Your task to perform on an android device: Open calendar and show me the third week of next month Image 0: 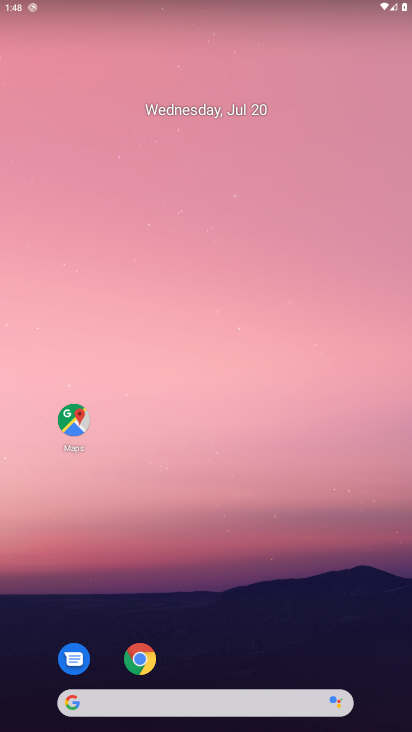
Step 0: drag from (22, 708) to (155, 313)
Your task to perform on an android device: Open calendar and show me the third week of next month Image 1: 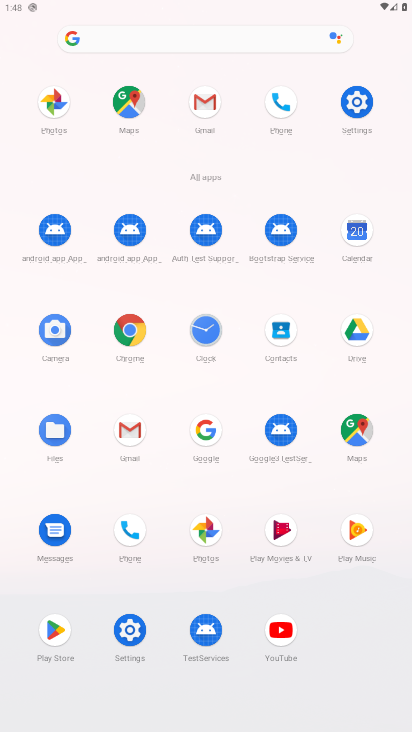
Step 1: click (357, 238)
Your task to perform on an android device: Open calendar and show me the third week of next month Image 2: 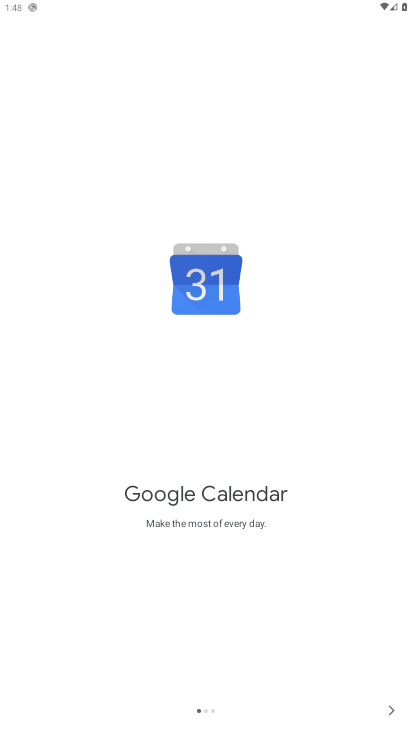
Step 2: click (389, 707)
Your task to perform on an android device: Open calendar and show me the third week of next month Image 3: 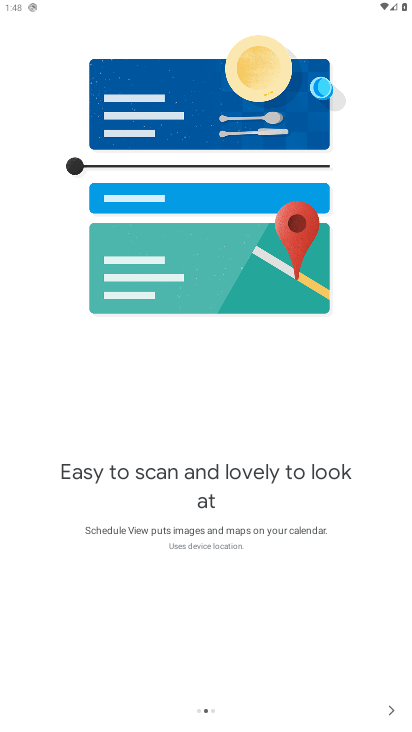
Step 3: click (390, 704)
Your task to perform on an android device: Open calendar and show me the third week of next month Image 4: 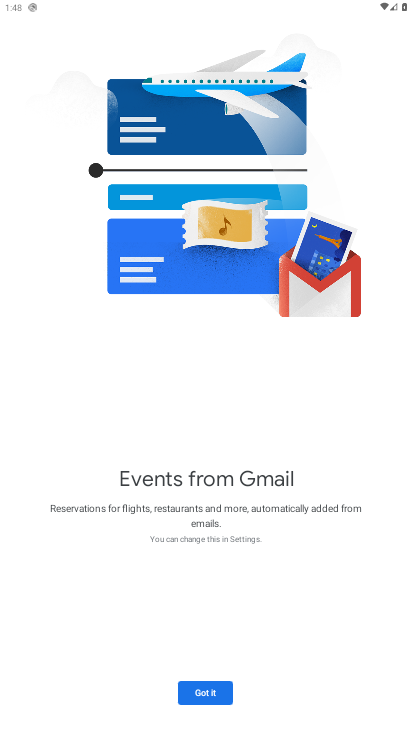
Step 4: click (211, 686)
Your task to perform on an android device: Open calendar and show me the third week of next month Image 5: 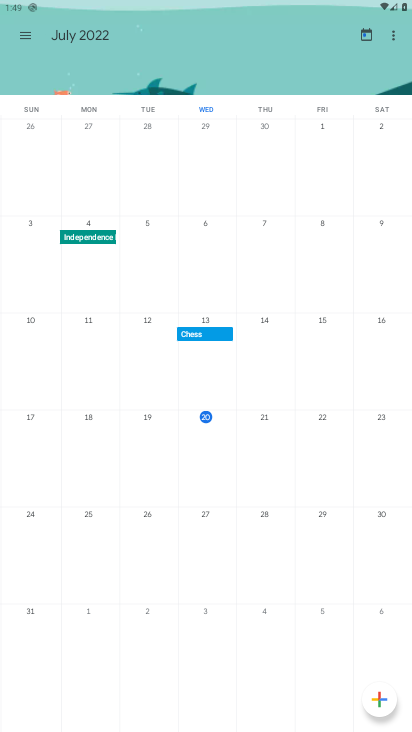
Step 5: click (14, 42)
Your task to perform on an android device: Open calendar and show me the third week of next month Image 6: 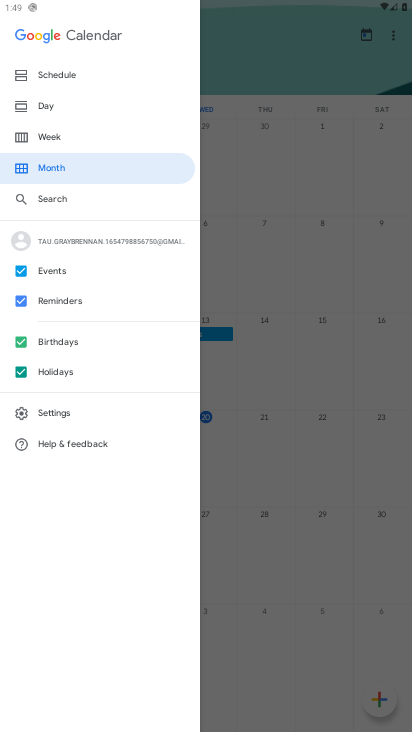
Step 6: click (266, 35)
Your task to perform on an android device: Open calendar and show me the third week of next month Image 7: 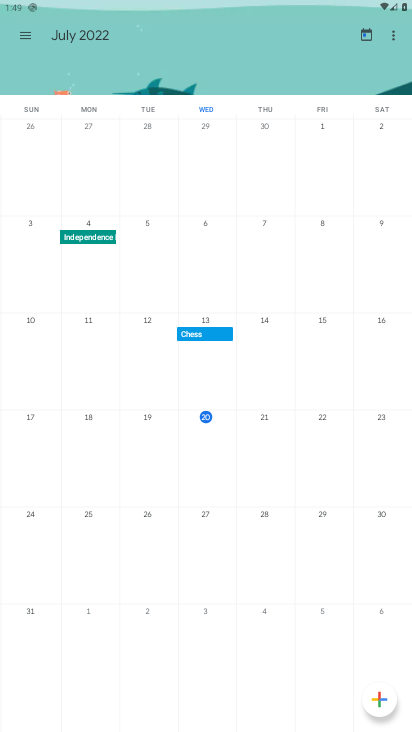
Step 7: drag from (377, 280) to (0, 358)
Your task to perform on an android device: Open calendar and show me the third week of next month Image 8: 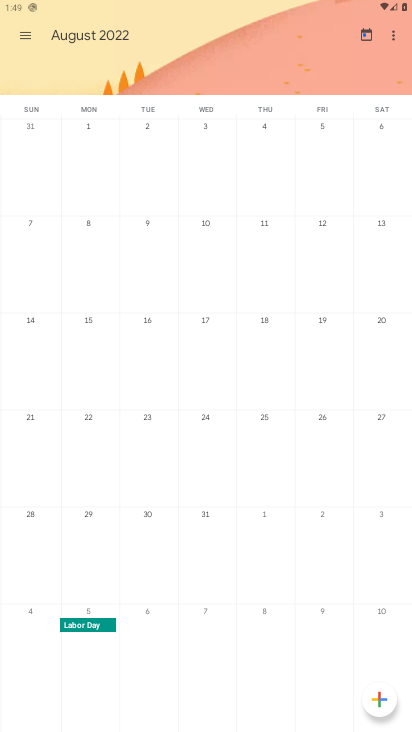
Step 8: click (91, 329)
Your task to perform on an android device: Open calendar and show me the third week of next month Image 9: 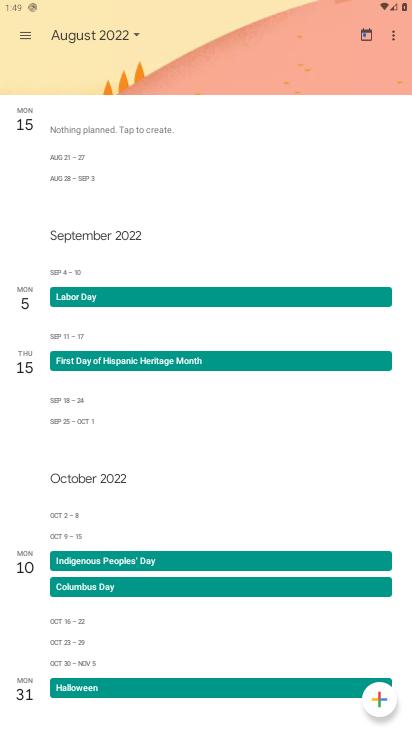
Step 9: task complete